Your task to perform on an android device: toggle sleep mode Image 0: 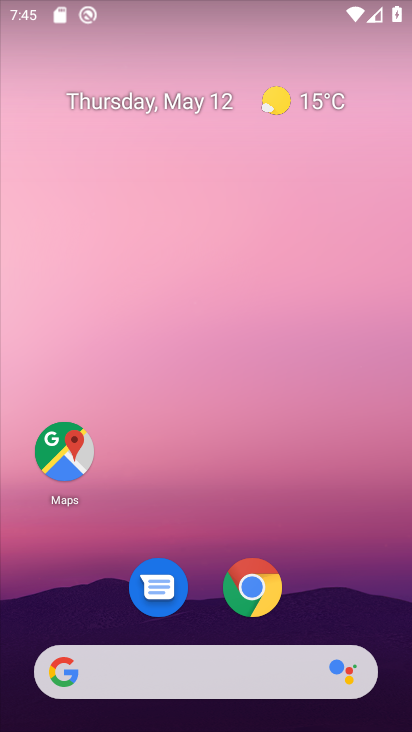
Step 0: drag from (373, 615) to (310, 134)
Your task to perform on an android device: toggle sleep mode Image 1: 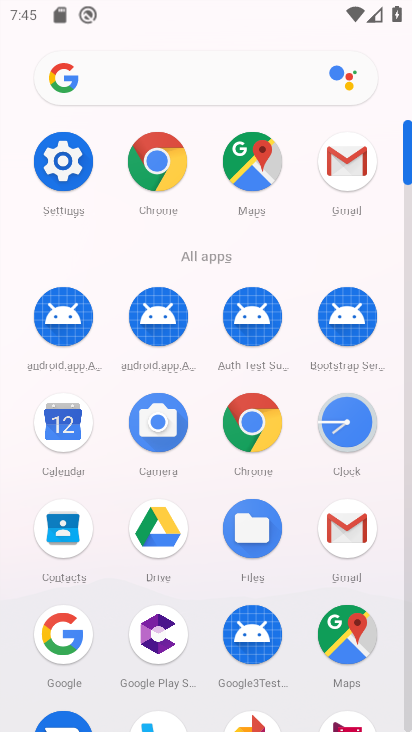
Step 1: click (231, 358)
Your task to perform on an android device: toggle sleep mode Image 2: 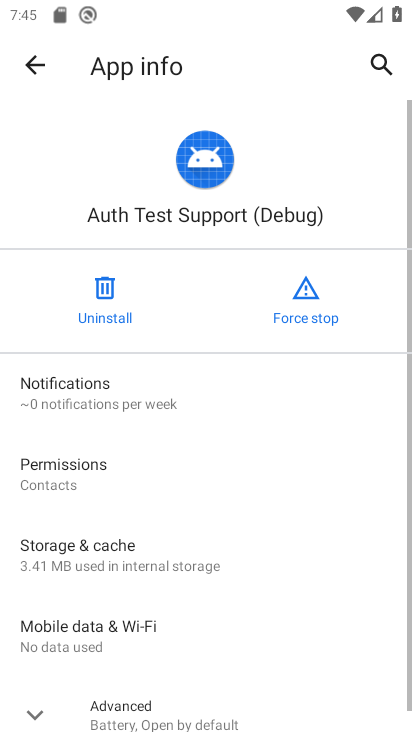
Step 2: press home button
Your task to perform on an android device: toggle sleep mode Image 3: 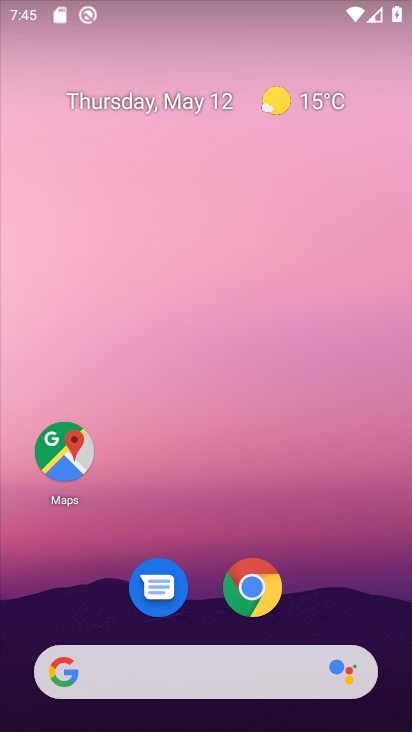
Step 3: drag from (361, 579) to (241, 13)
Your task to perform on an android device: toggle sleep mode Image 4: 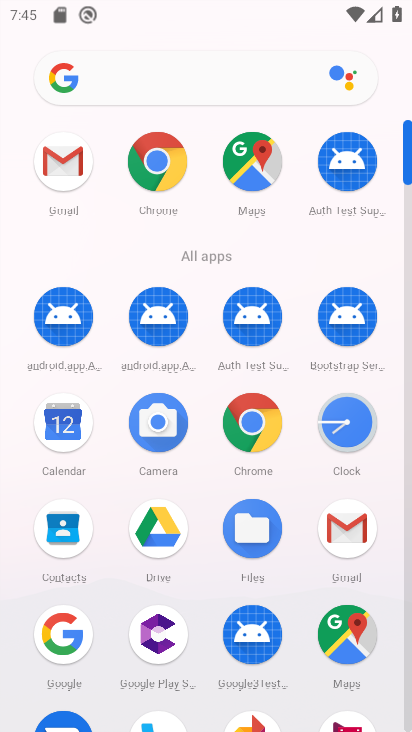
Step 4: click (407, 714)
Your task to perform on an android device: toggle sleep mode Image 5: 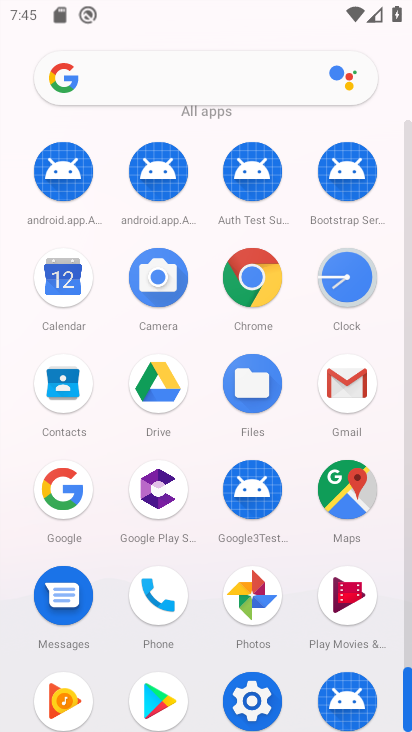
Step 5: click (260, 698)
Your task to perform on an android device: toggle sleep mode Image 6: 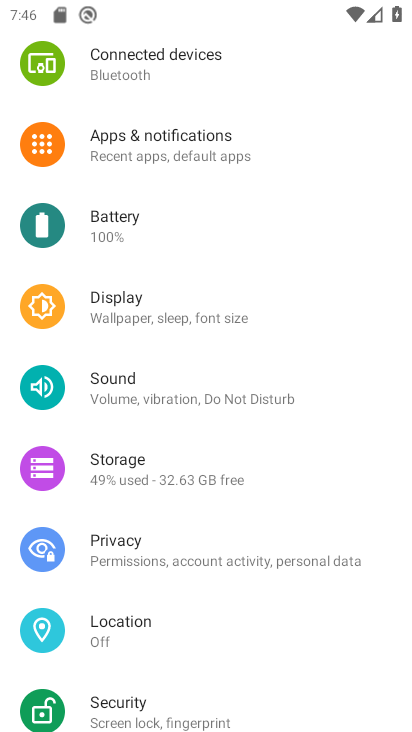
Step 6: task complete